Your task to perform on an android device: Open calendar and show me the first week of next month Image 0: 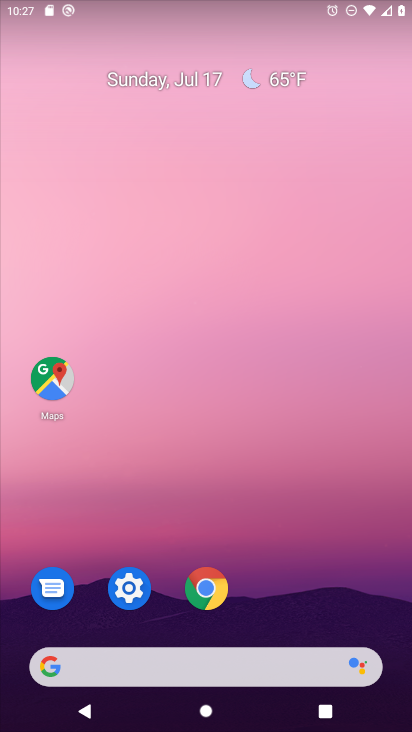
Step 0: drag from (255, 377) to (246, 301)
Your task to perform on an android device: Open calendar and show me the first week of next month Image 1: 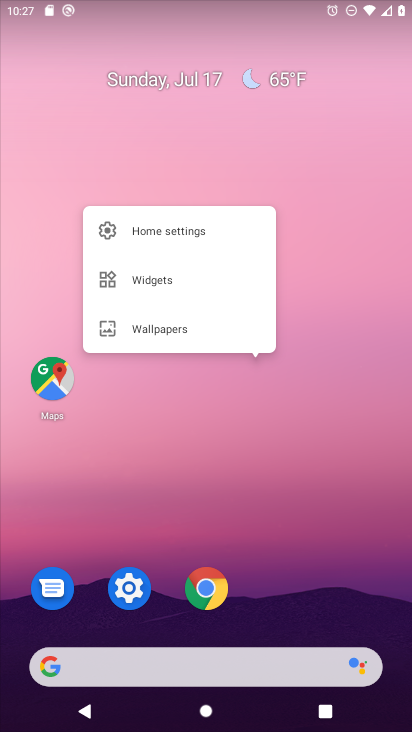
Step 1: click (278, 469)
Your task to perform on an android device: Open calendar and show me the first week of next month Image 2: 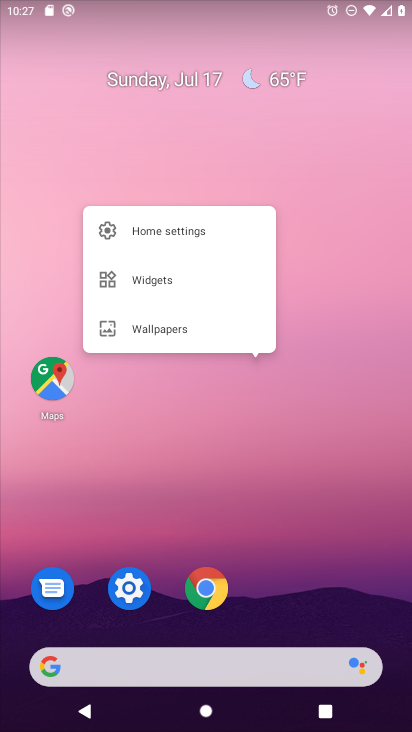
Step 2: click (280, 464)
Your task to perform on an android device: Open calendar and show me the first week of next month Image 3: 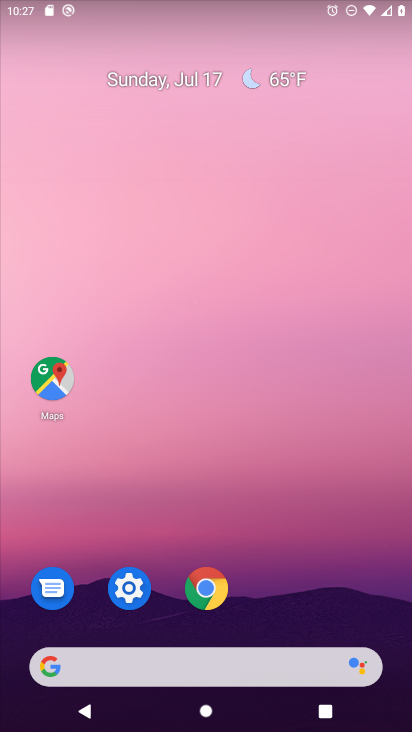
Step 3: drag from (279, 700) to (182, 133)
Your task to perform on an android device: Open calendar and show me the first week of next month Image 4: 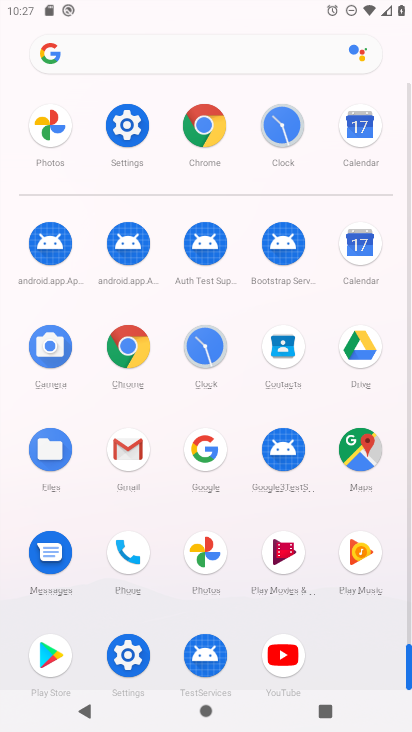
Step 4: click (362, 252)
Your task to perform on an android device: Open calendar and show me the first week of next month Image 5: 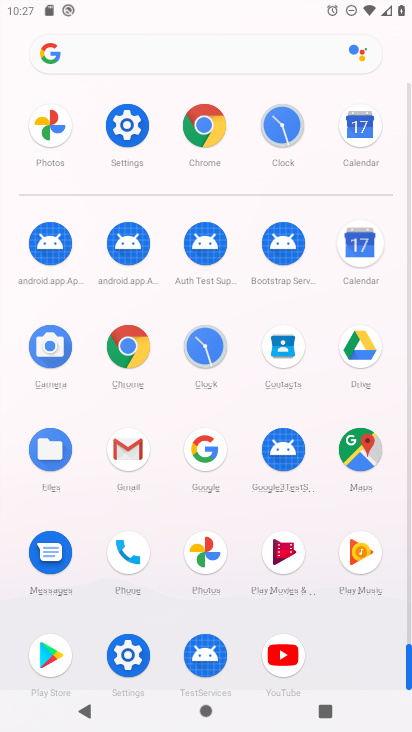
Step 5: click (363, 252)
Your task to perform on an android device: Open calendar and show me the first week of next month Image 6: 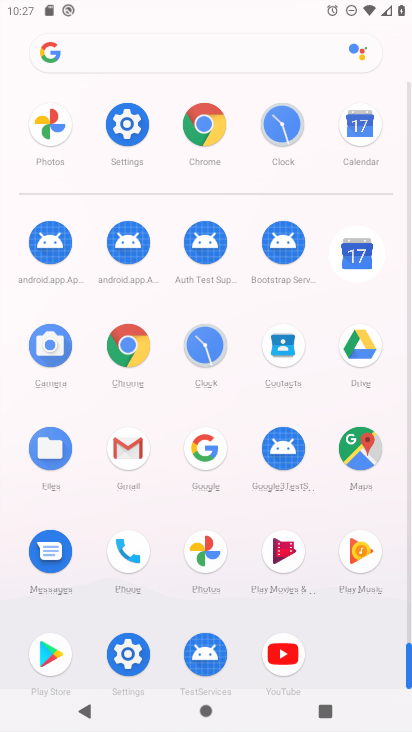
Step 6: click (364, 253)
Your task to perform on an android device: Open calendar and show me the first week of next month Image 7: 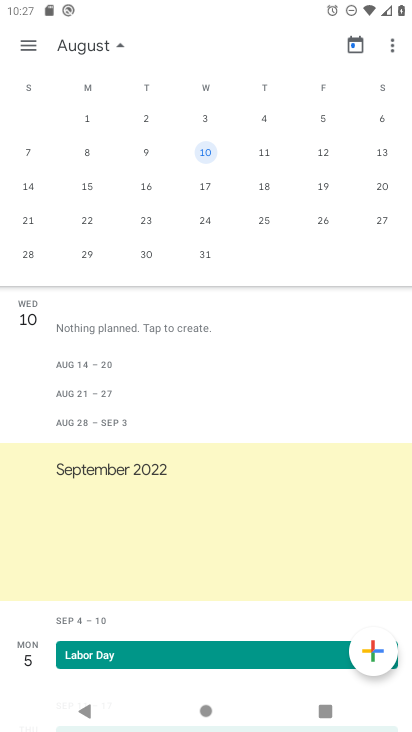
Step 7: click (203, 118)
Your task to perform on an android device: Open calendar and show me the first week of next month Image 8: 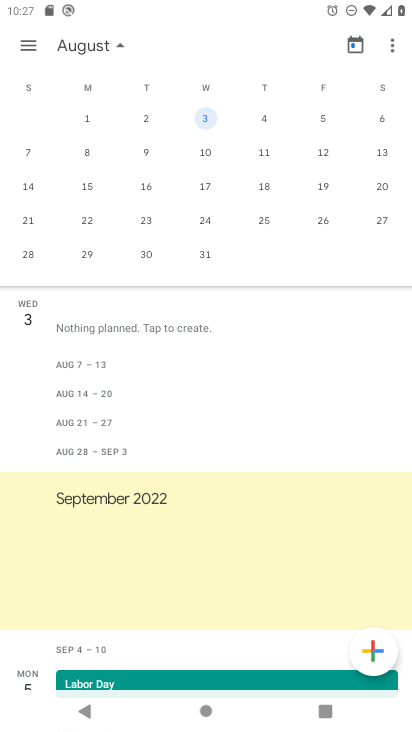
Step 8: click (207, 123)
Your task to perform on an android device: Open calendar and show me the first week of next month Image 9: 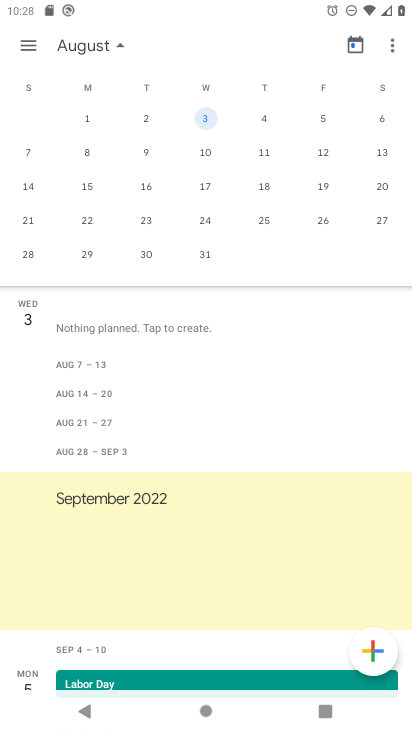
Step 9: task complete